Your task to perform on an android device: turn on javascript in the chrome app Image 0: 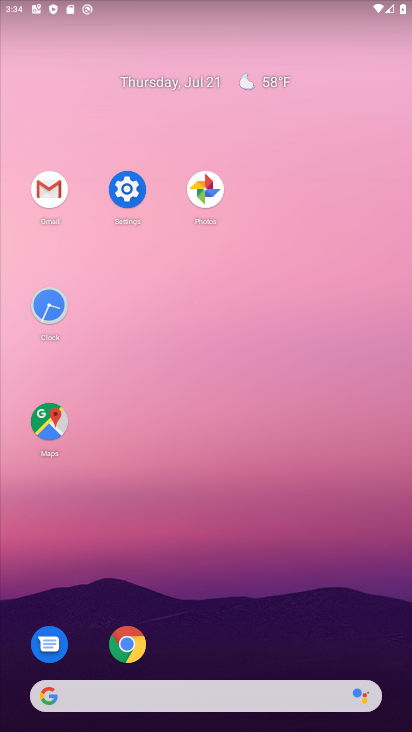
Step 0: click (122, 635)
Your task to perform on an android device: turn on javascript in the chrome app Image 1: 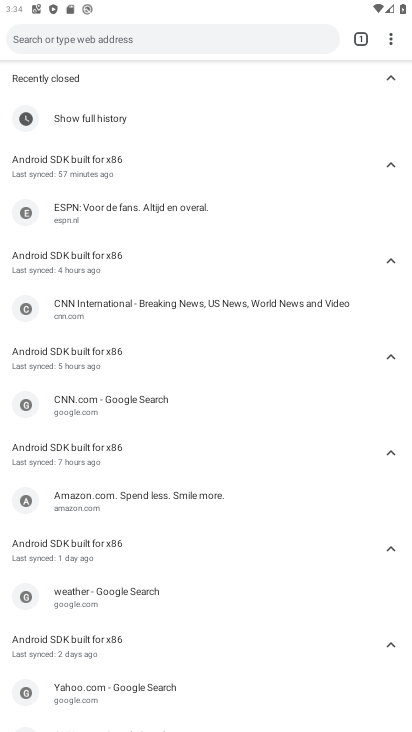
Step 1: click (394, 41)
Your task to perform on an android device: turn on javascript in the chrome app Image 2: 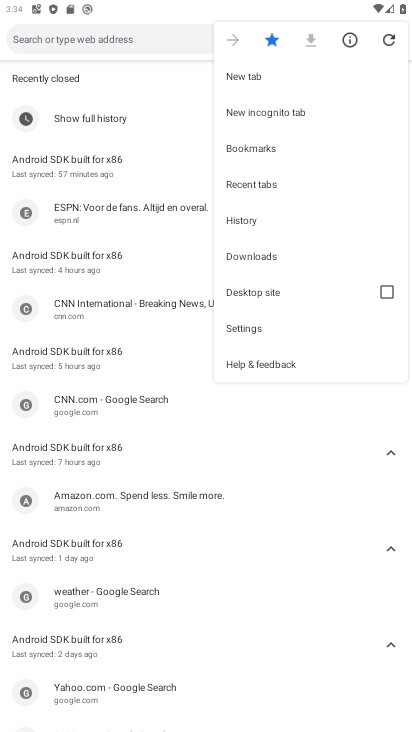
Step 2: click (237, 326)
Your task to perform on an android device: turn on javascript in the chrome app Image 3: 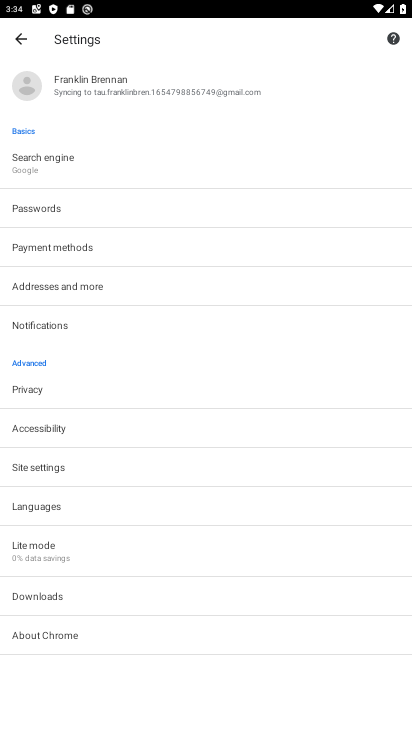
Step 3: click (92, 463)
Your task to perform on an android device: turn on javascript in the chrome app Image 4: 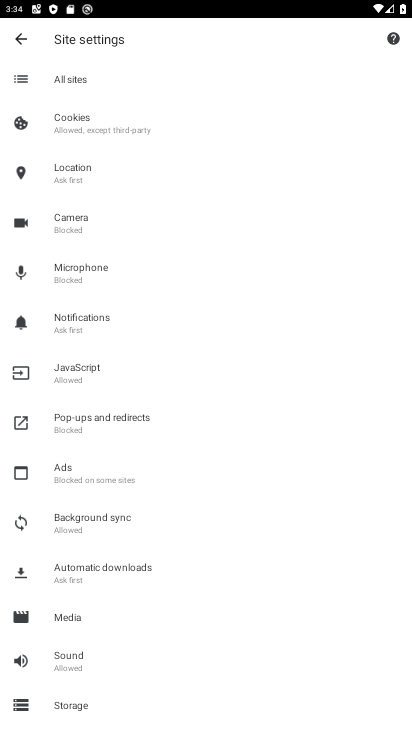
Step 4: click (133, 376)
Your task to perform on an android device: turn on javascript in the chrome app Image 5: 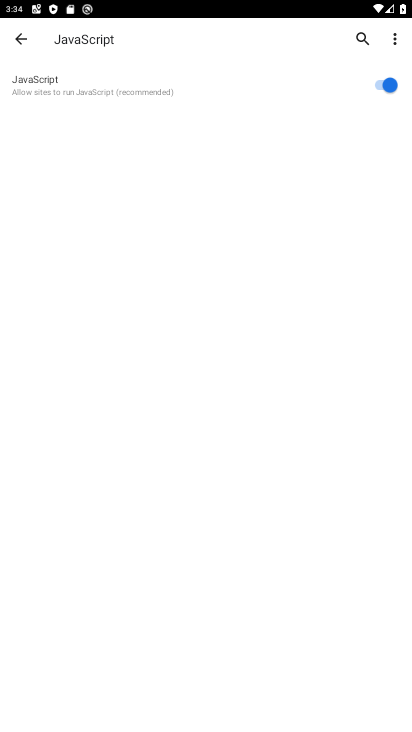
Step 5: task complete